Your task to perform on an android device: turn off data saver in the chrome app Image 0: 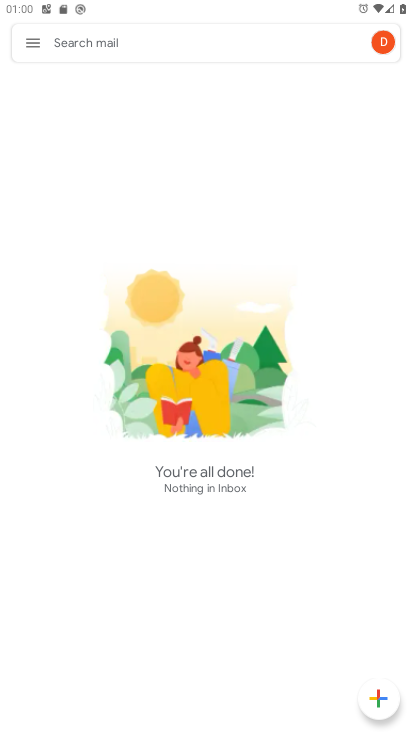
Step 0: press home button
Your task to perform on an android device: turn off data saver in the chrome app Image 1: 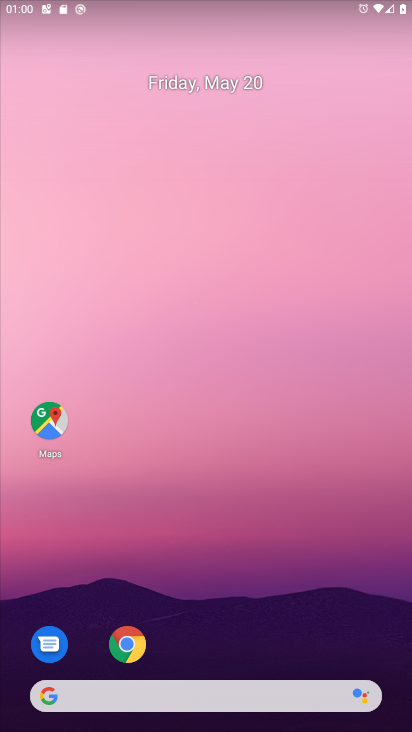
Step 1: click (121, 644)
Your task to perform on an android device: turn off data saver in the chrome app Image 2: 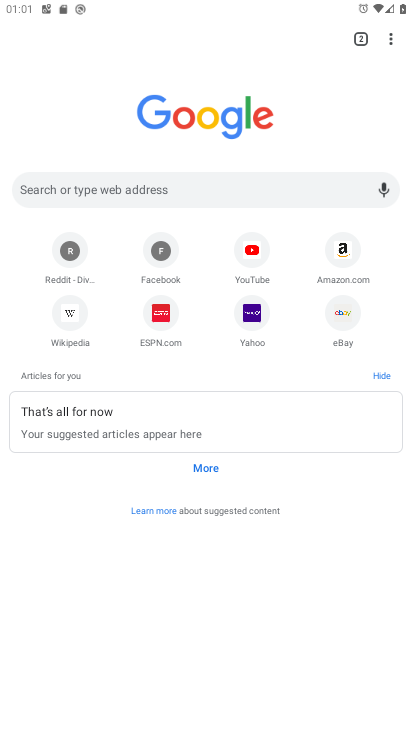
Step 2: click (389, 38)
Your task to perform on an android device: turn off data saver in the chrome app Image 3: 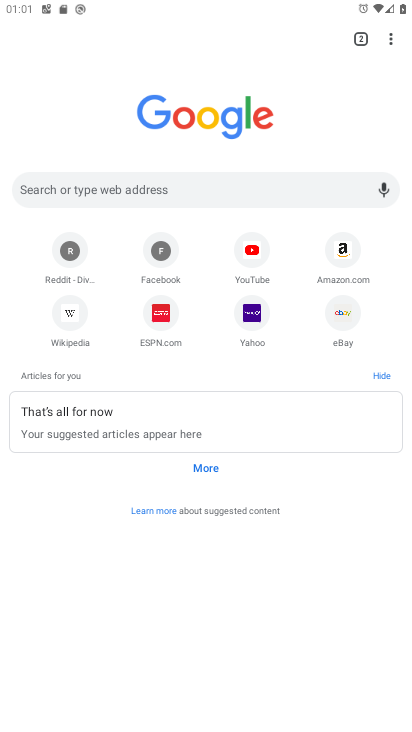
Step 3: click (389, 38)
Your task to perform on an android device: turn off data saver in the chrome app Image 4: 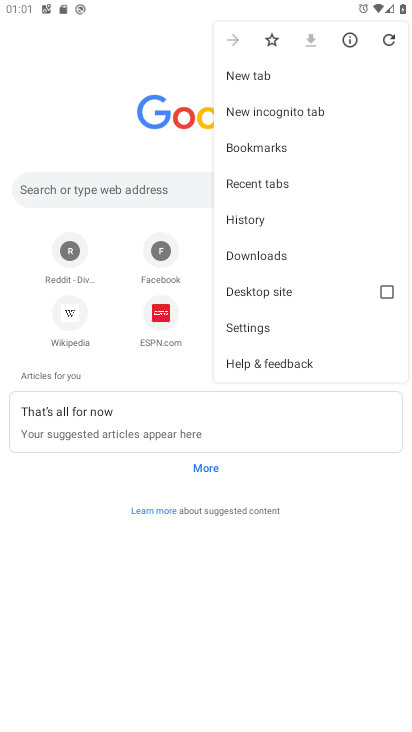
Step 4: click (240, 328)
Your task to perform on an android device: turn off data saver in the chrome app Image 5: 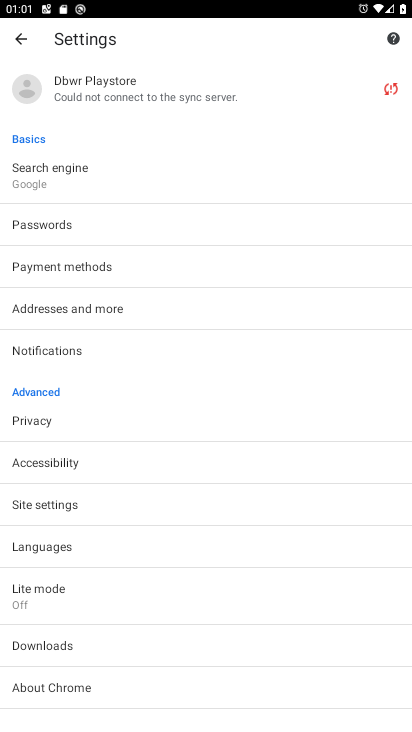
Step 5: click (23, 590)
Your task to perform on an android device: turn off data saver in the chrome app Image 6: 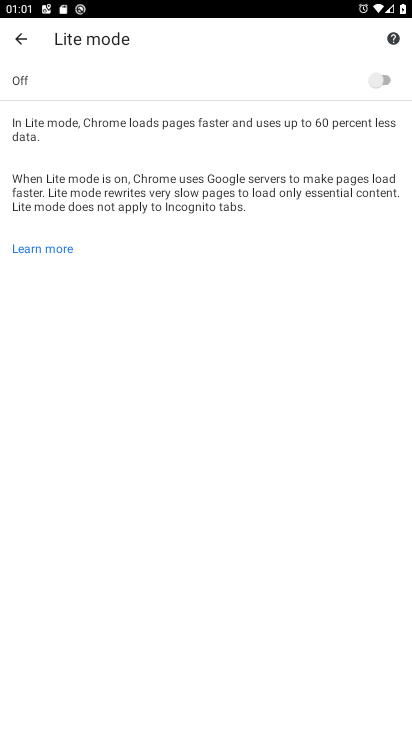
Step 6: task complete